Your task to perform on an android device: turn on data saver in the chrome app Image 0: 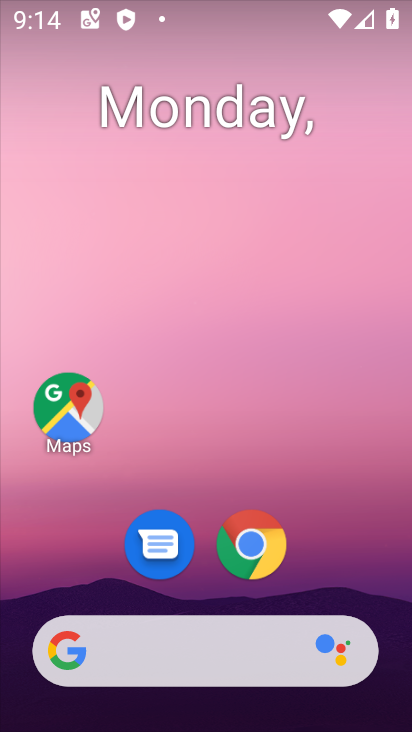
Step 0: click (247, 541)
Your task to perform on an android device: turn on data saver in the chrome app Image 1: 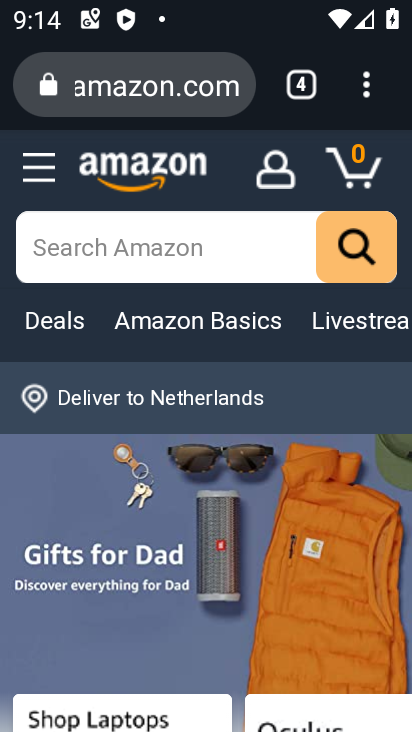
Step 1: click (362, 80)
Your task to perform on an android device: turn on data saver in the chrome app Image 2: 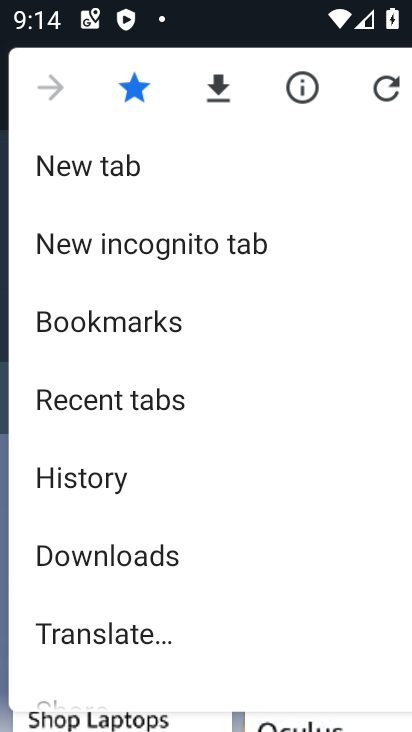
Step 2: drag from (210, 584) to (146, 65)
Your task to perform on an android device: turn on data saver in the chrome app Image 3: 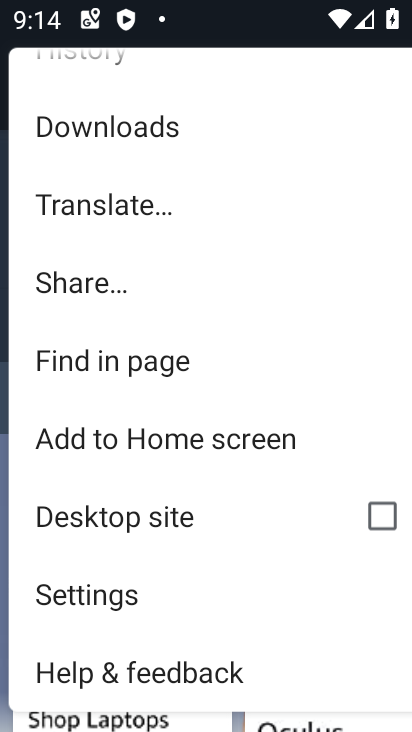
Step 3: click (112, 596)
Your task to perform on an android device: turn on data saver in the chrome app Image 4: 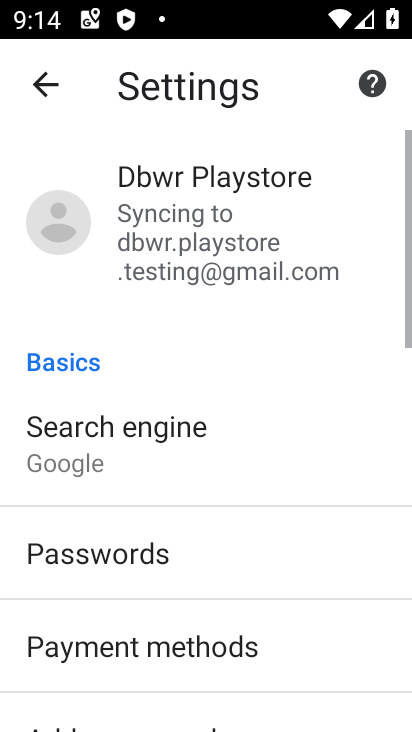
Step 4: click (401, 496)
Your task to perform on an android device: turn on data saver in the chrome app Image 5: 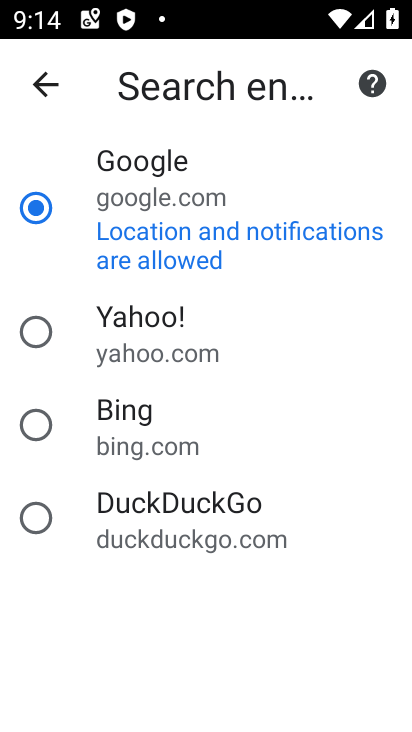
Step 5: click (44, 83)
Your task to perform on an android device: turn on data saver in the chrome app Image 6: 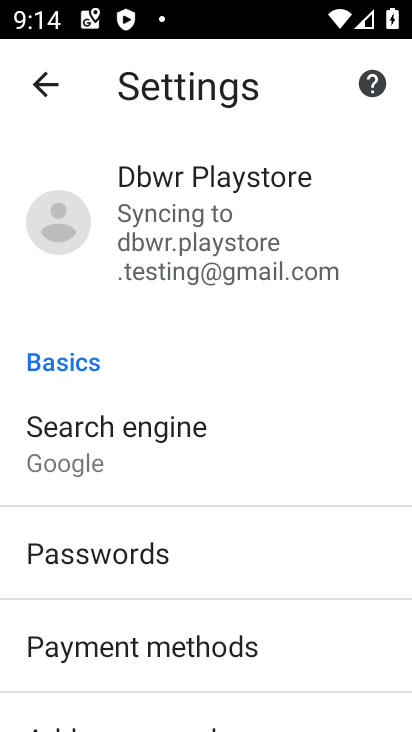
Step 6: drag from (216, 500) to (216, 155)
Your task to perform on an android device: turn on data saver in the chrome app Image 7: 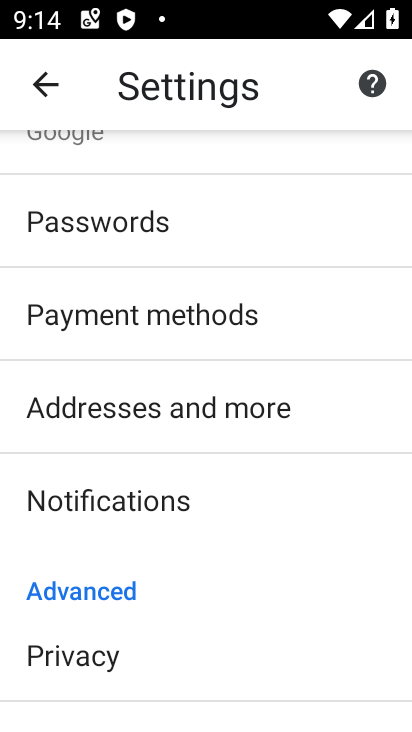
Step 7: drag from (249, 496) to (218, 158)
Your task to perform on an android device: turn on data saver in the chrome app Image 8: 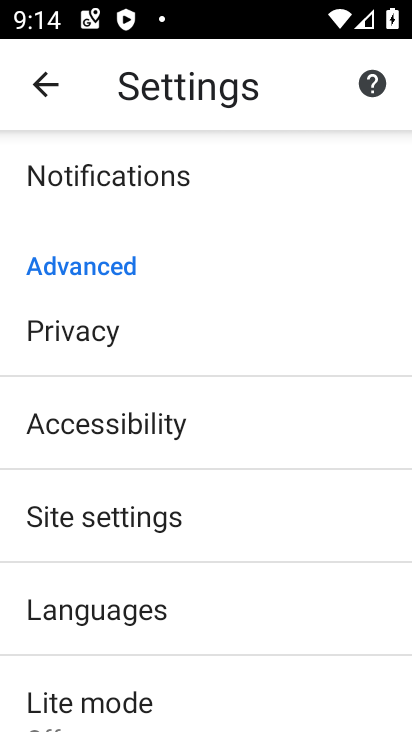
Step 8: drag from (220, 589) to (190, 280)
Your task to perform on an android device: turn on data saver in the chrome app Image 9: 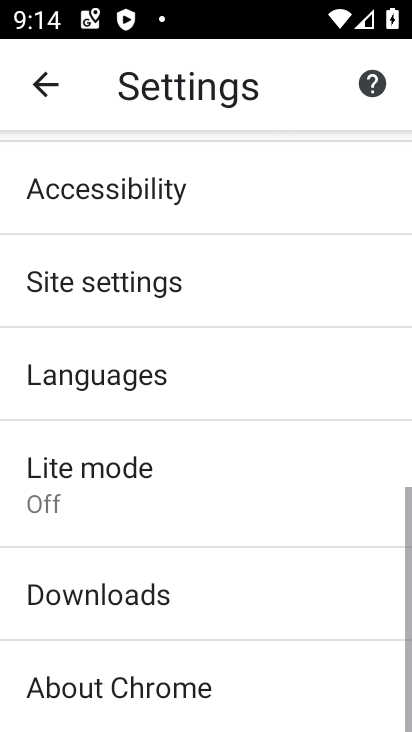
Step 9: click (99, 466)
Your task to perform on an android device: turn on data saver in the chrome app Image 10: 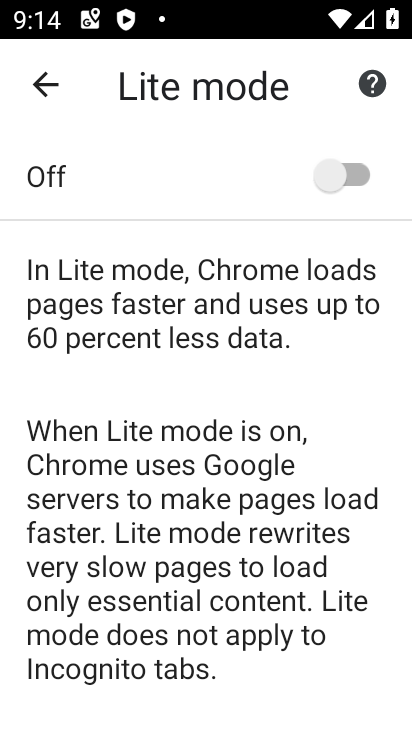
Step 10: click (333, 161)
Your task to perform on an android device: turn on data saver in the chrome app Image 11: 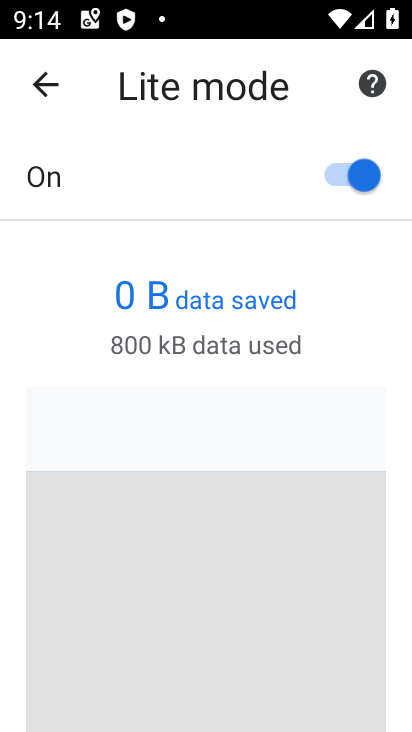
Step 11: task complete